Your task to perform on an android device: turn on priority inbox in the gmail app Image 0: 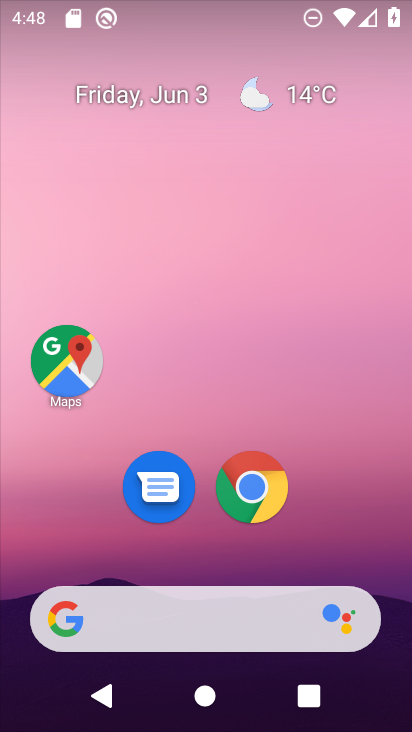
Step 0: drag from (198, 553) to (269, 58)
Your task to perform on an android device: turn on priority inbox in the gmail app Image 1: 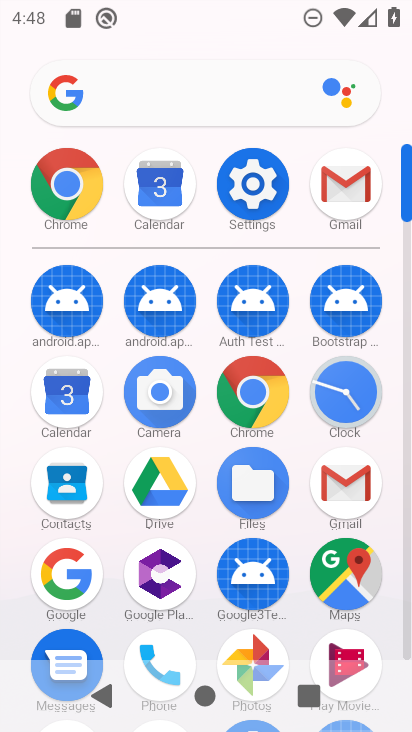
Step 1: click (349, 192)
Your task to perform on an android device: turn on priority inbox in the gmail app Image 2: 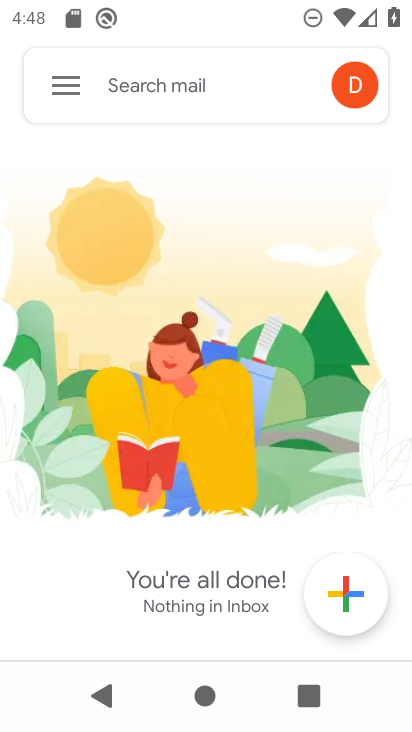
Step 2: click (69, 74)
Your task to perform on an android device: turn on priority inbox in the gmail app Image 3: 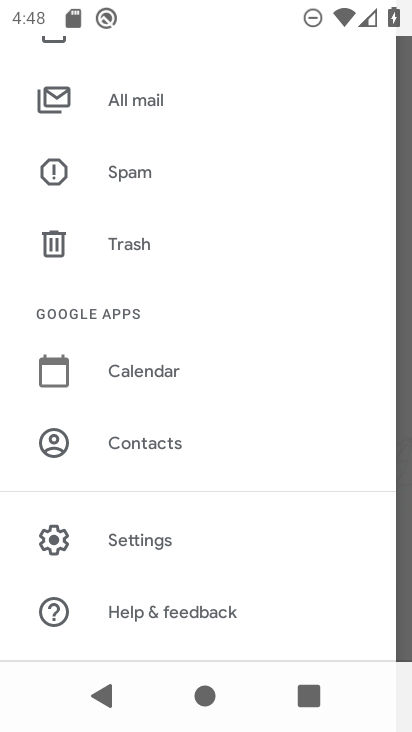
Step 3: click (124, 543)
Your task to perform on an android device: turn on priority inbox in the gmail app Image 4: 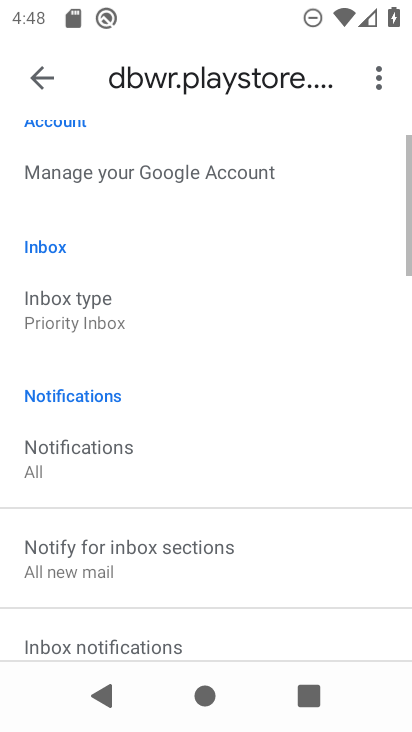
Step 4: click (95, 313)
Your task to perform on an android device: turn on priority inbox in the gmail app Image 5: 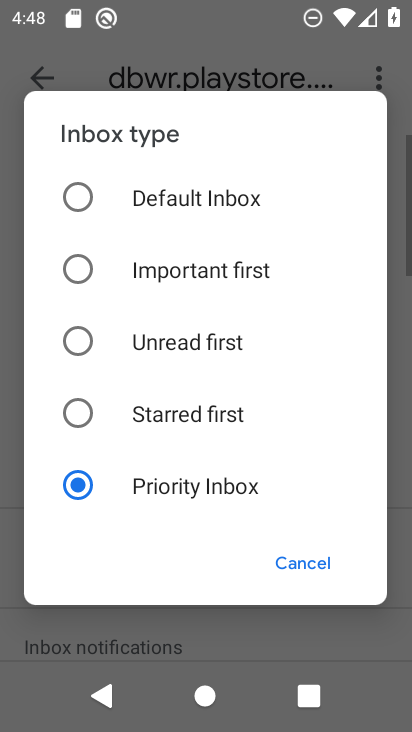
Step 5: click (113, 492)
Your task to perform on an android device: turn on priority inbox in the gmail app Image 6: 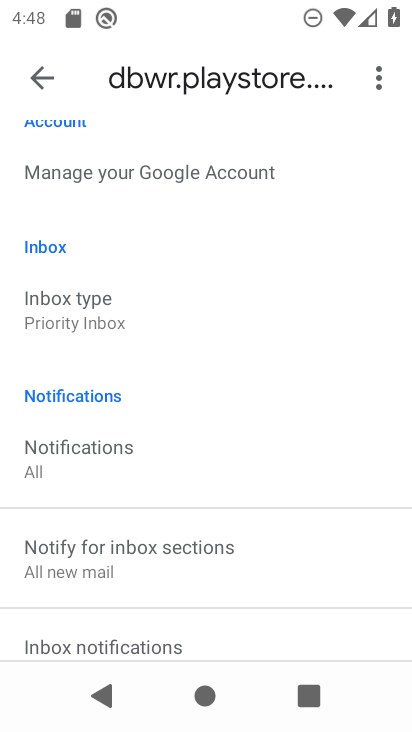
Step 6: task complete